Your task to perform on an android device: Go to Reddit.com Image 0: 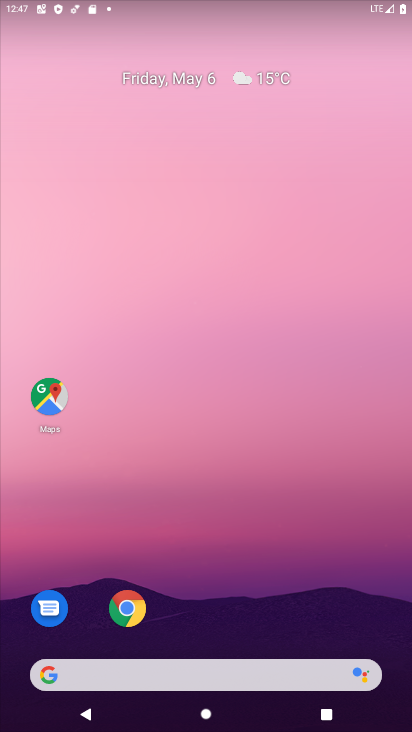
Step 0: drag from (222, 628) to (333, 175)
Your task to perform on an android device: Go to Reddit.com Image 1: 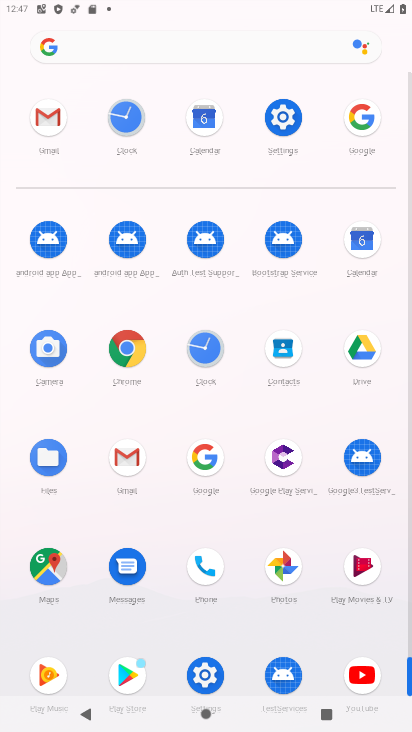
Step 1: click (123, 339)
Your task to perform on an android device: Go to Reddit.com Image 2: 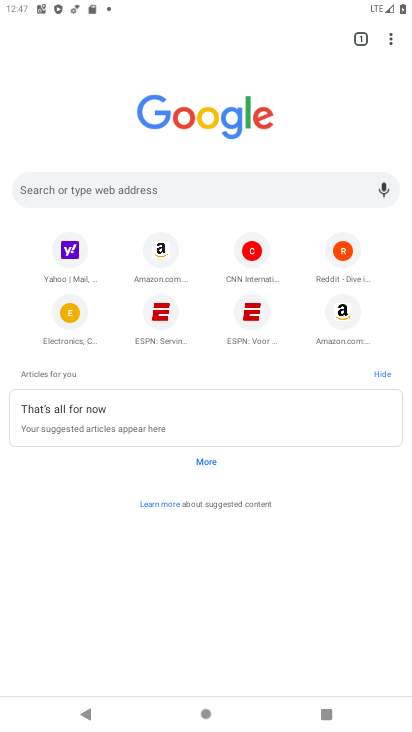
Step 2: click (165, 185)
Your task to perform on an android device: Go to Reddit.com Image 3: 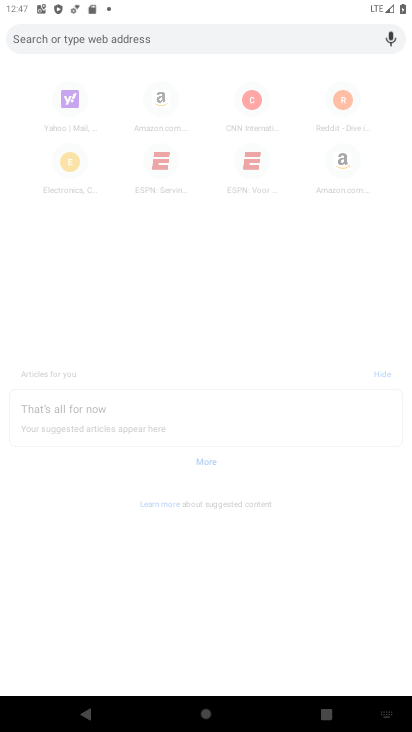
Step 3: type "reddit.com"
Your task to perform on an android device: Go to Reddit.com Image 4: 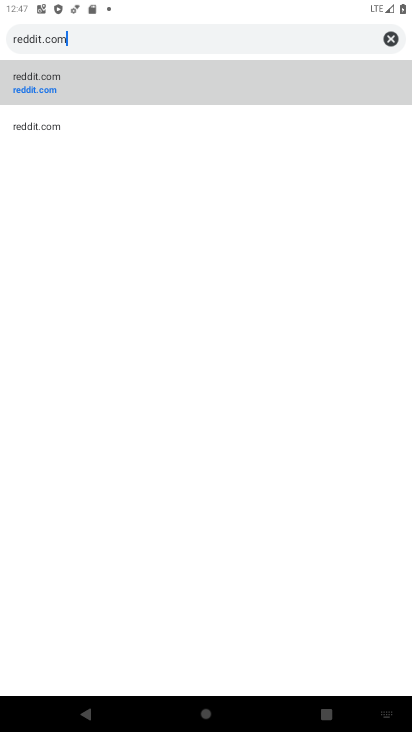
Step 4: click (17, 79)
Your task to perform on an android device: Go to Reddit.com Image 5: 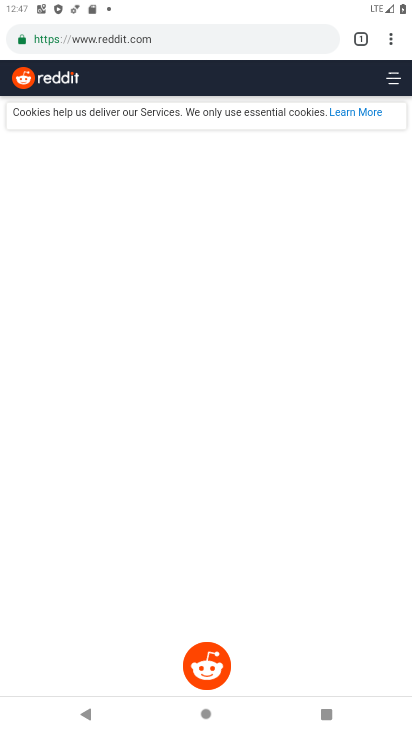
Step 5: task complete